Your task to perform on an android device: set an alarm Image 0: 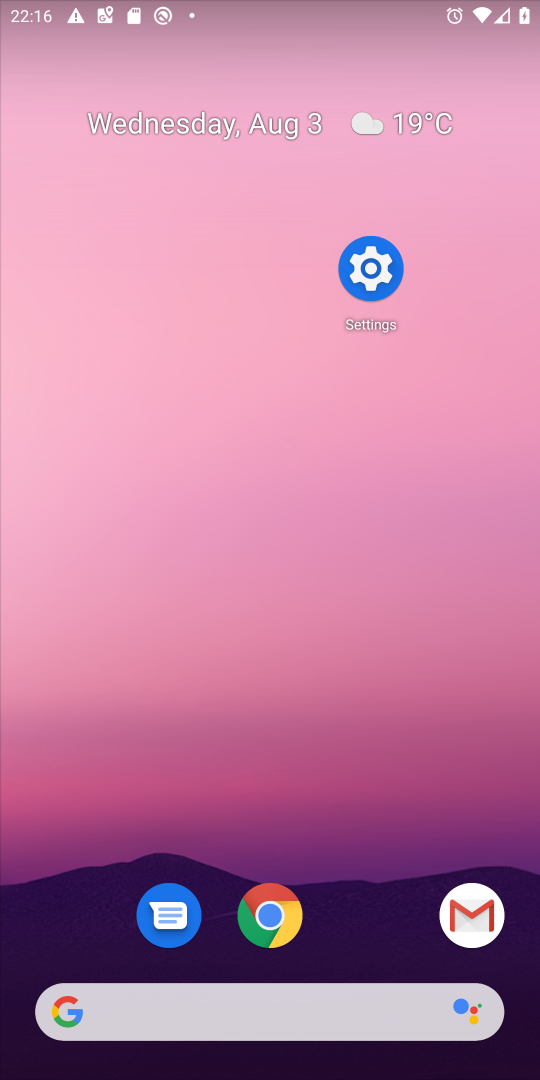
Step 0: drag from (395, 1045) to (317, 447)
Your task to perform on an android device: set an alarm Image 1: 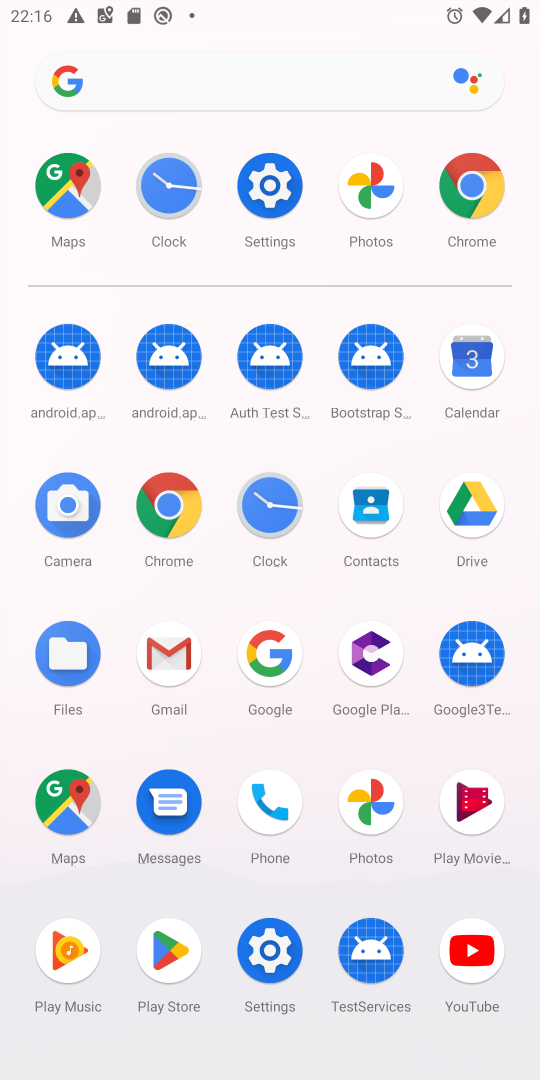
Step 1: click (270, 490)
Your task to perform on an android device: set an alarm Image 2: 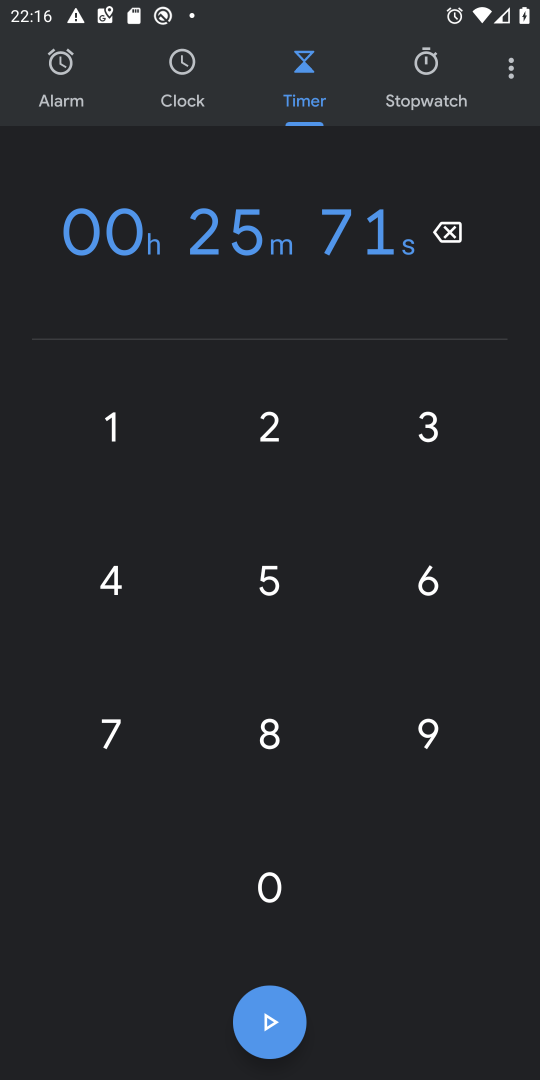
Step 2: click (65, 87)
Your task to perform on an android device: set an alarm Image 3: 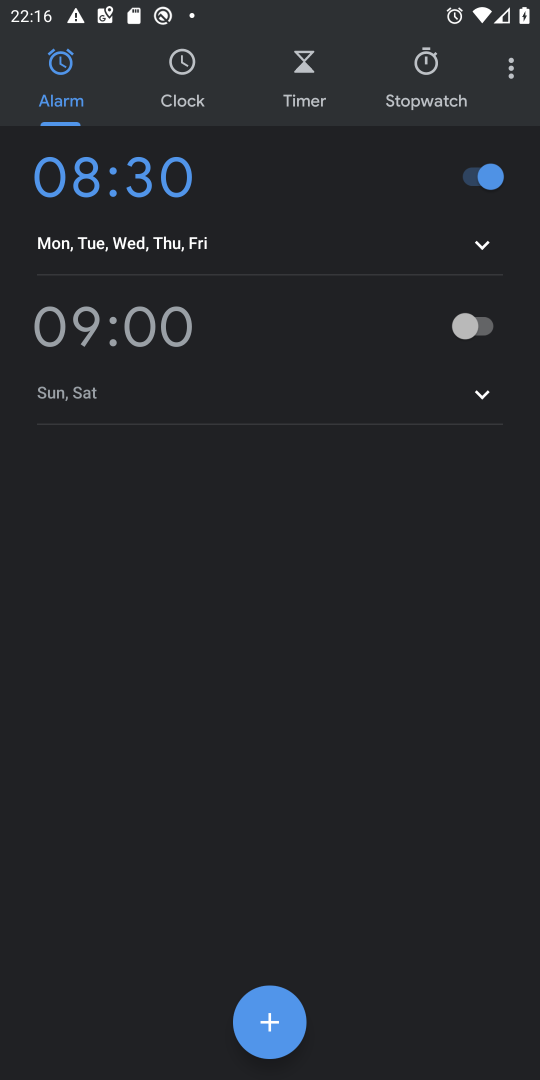
Step 3: click (464, 314)
Your task to perform on an android device: set an alarm Image 4: 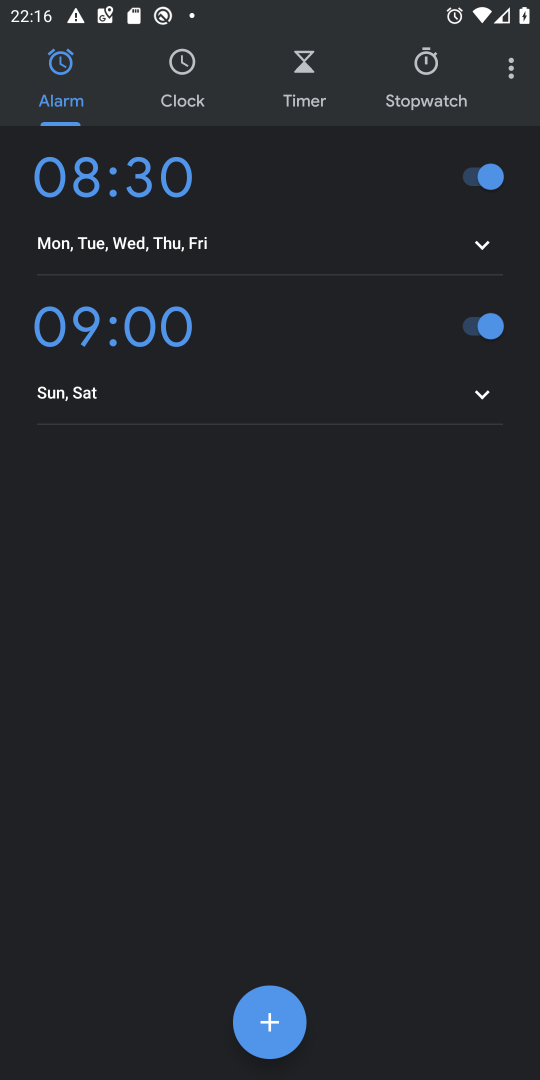
Step 4: task complete